Your task to perform on an android device: Go to Android settings Image 0: 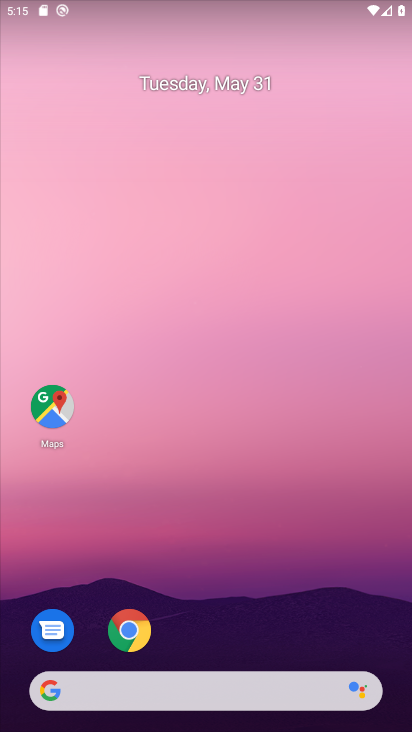
Step 0: drag from (232, 606) to (272, 91)
Your task to perform on an android device: Go to Android settings Image 1: 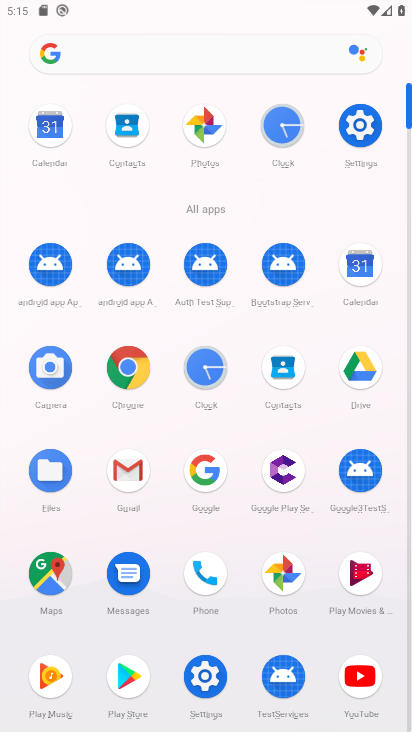
Step 1: click (363, 141)
Your task to perform on an android device: Go to Android settings Image 2: 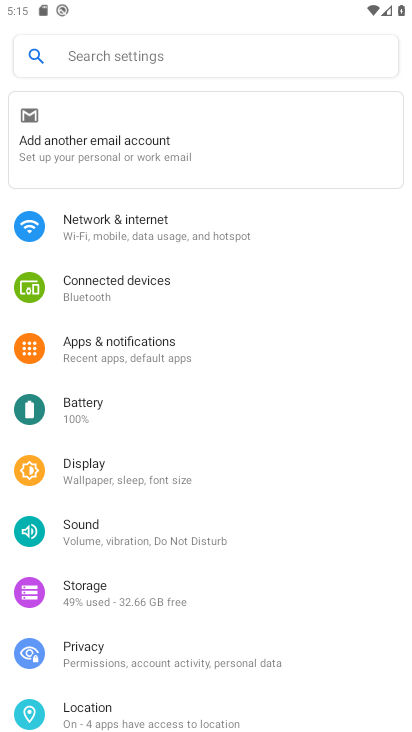
Step 2: task complete